Your task to perform on an android device: Open Youtube and go to "Your channel" Image 0: 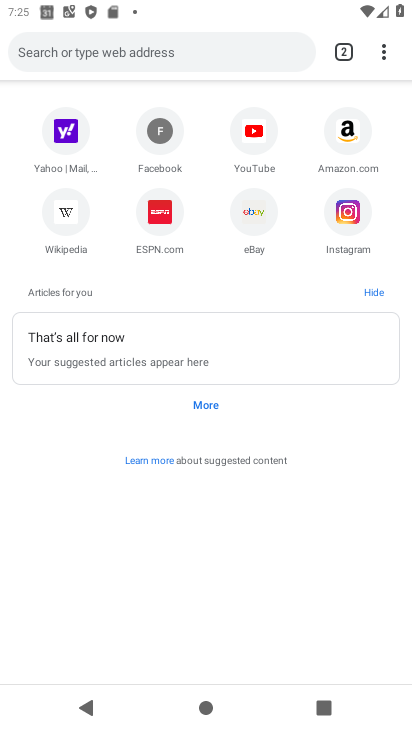
Step 0: press home button
Your task to perform on an android device: Open Youtube and go to "Your channel" Image 1: 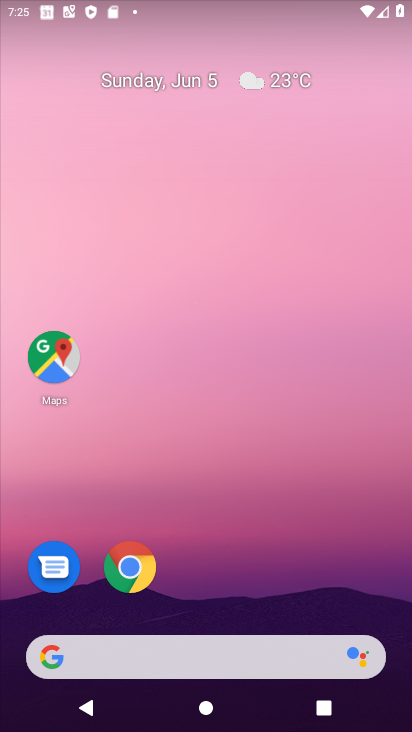
Step 1: drag from (405, 486) to (279, 75)
Your task to perform on an android device: Open Youtube and go to "Your channel" Image 2: 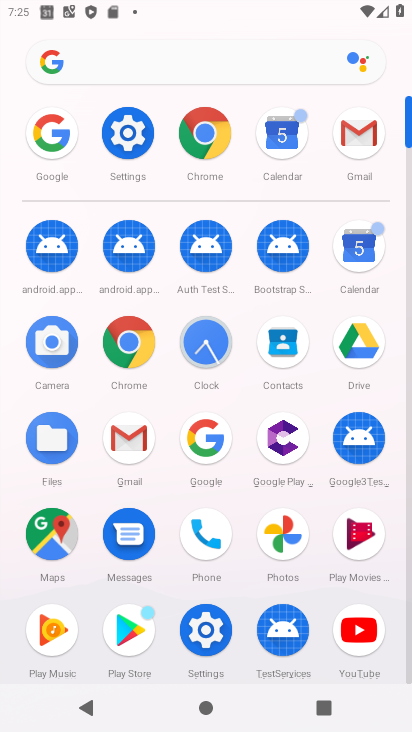
Step 2: click (340, 662)
Your task to perform on an android device: Open Youtube and go to "Your channel" Image 3: 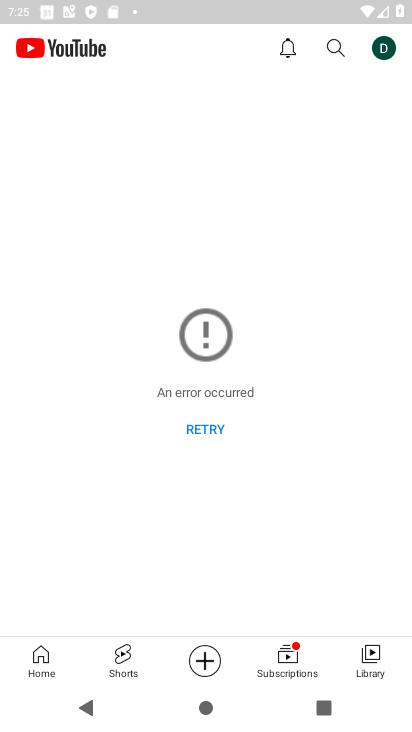
Step 3: click (381, 53)
Your task to perform on an android device: Open Youtube and go to "Your channel" Image 4: 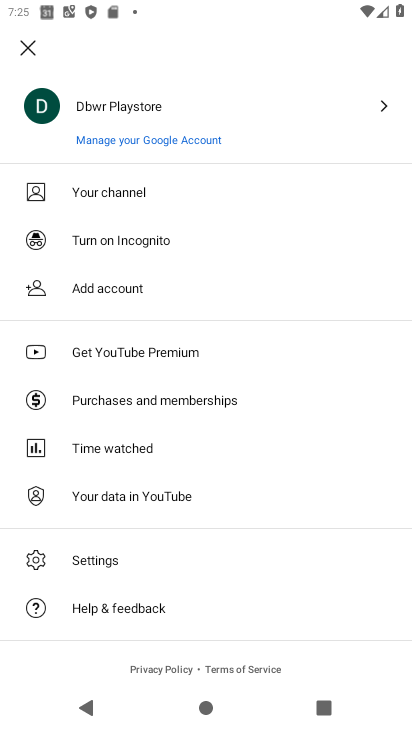
Step 4: click (110, 192)
Your task to perform on an android device: Open Youtube and go to "Your channel" Image 5: 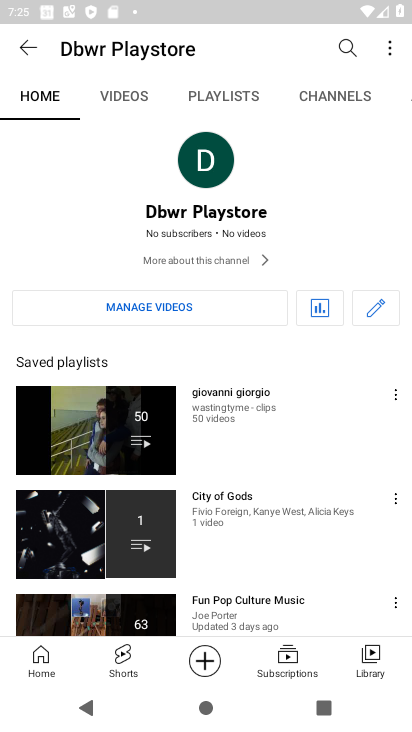
Step 5: task complete